Your task to perform on an android device: Search for Mexican restaurants on Maps Image 0: 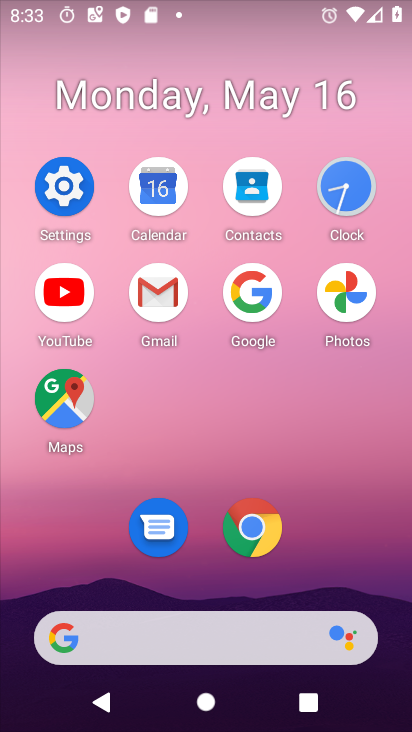
Step 0: click (47, 404)
Your task to perform on an android device: Search for Mexican restaurants on Maps Image 1: 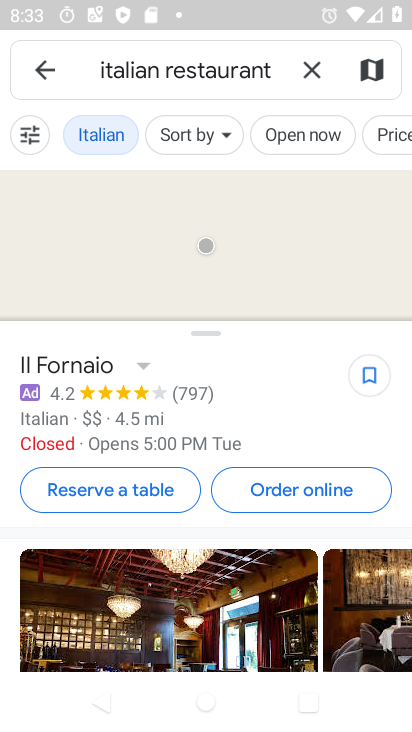
Step 1: click (309, 68)
Your task to perform on an android device: Search for Mexican restaurants on Maps Image 2: 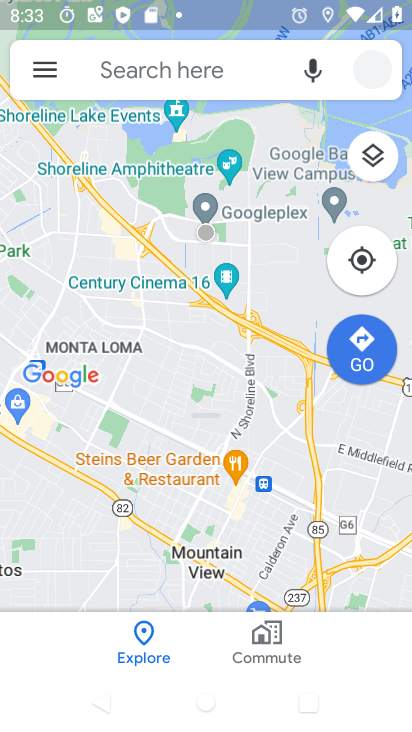
Step 2: click (154, 80)
Your task to perform on an android device: Search for Mexican restaurants on Maps Image 3: 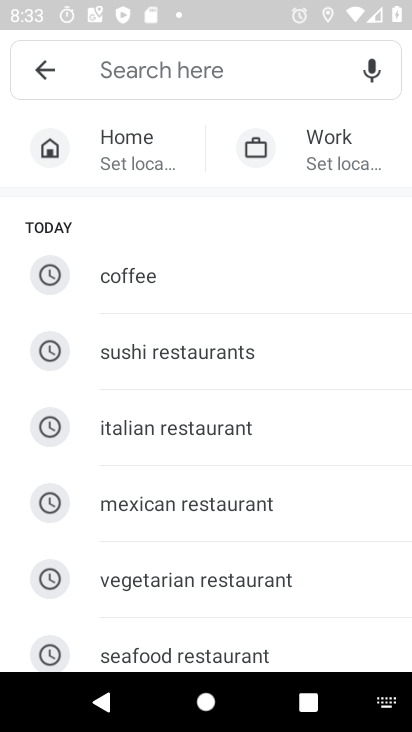
Step 3: click (227, 499)
Your task to perform on an android device: Search for Mexican restaurants on Maps Image 4: 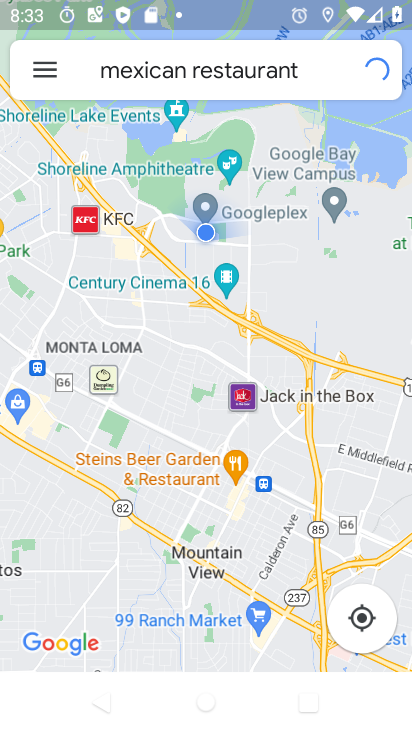
Step 4: task complete